Your task to perform on an android device: delete browsing data in the chrome app Image 0: 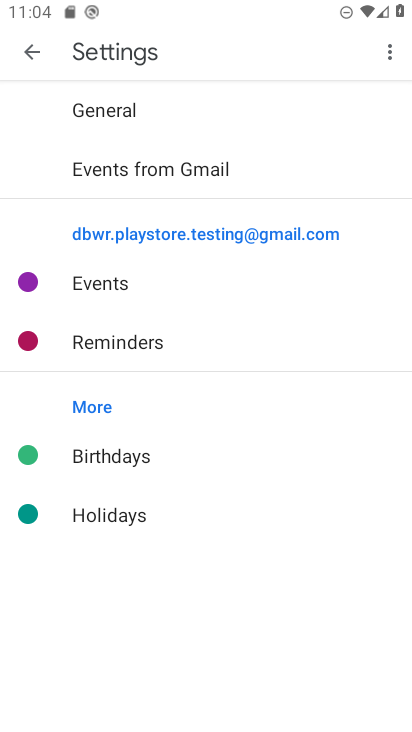
Step 0: press home button
Your task to perform on an android device: delete browsing data in the chrome app Image 1: 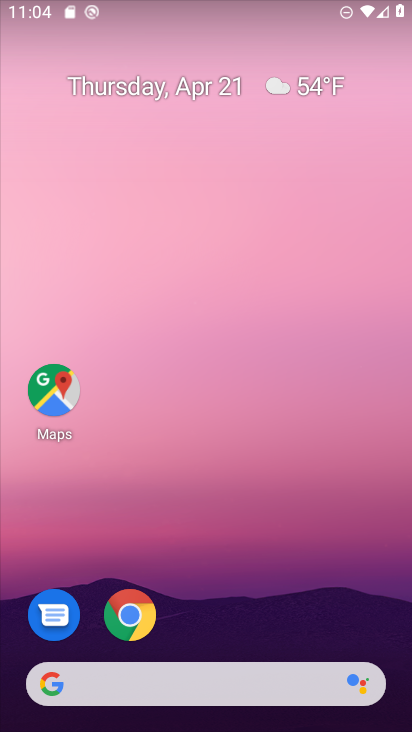
Step 1: click (124, 625)
Your task to perform on an android device: delete browsing data in the chrome app Image 2: 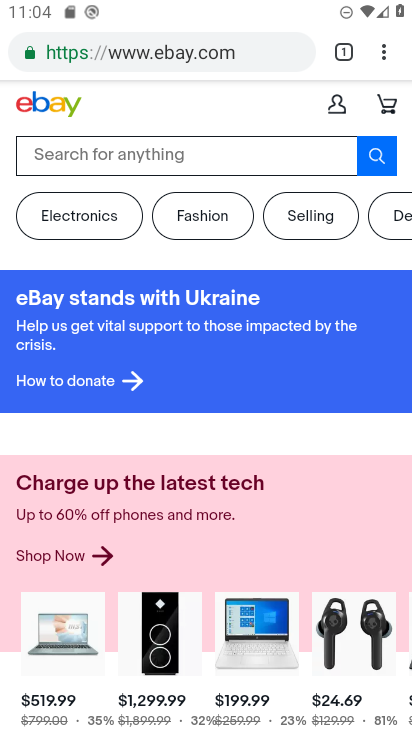
Step 2: click (382, 49)
Your task to perform on an android device: delete browsing data in the chrome app Image 3: 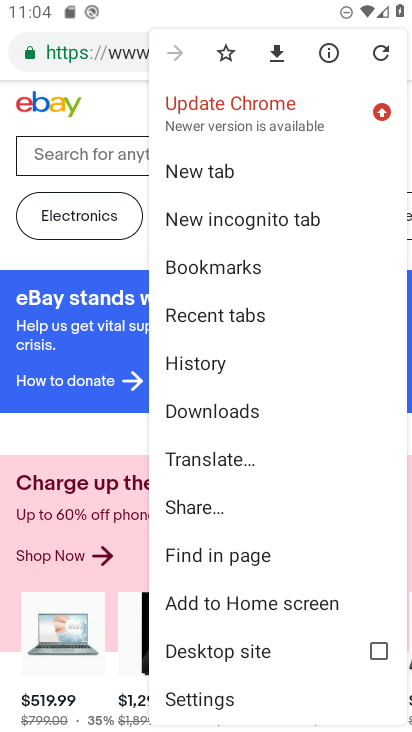
Step 3: click (245, 365)
Your task to perform on an android device: delete browsing data in the chrome app Image 4: 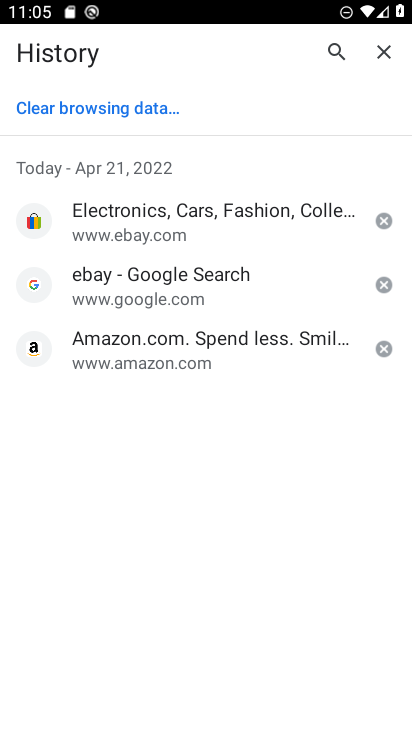
Step 4: click (79, 115)
Your task to perform on an android device: delete browsing data in the chrome app Image 5: 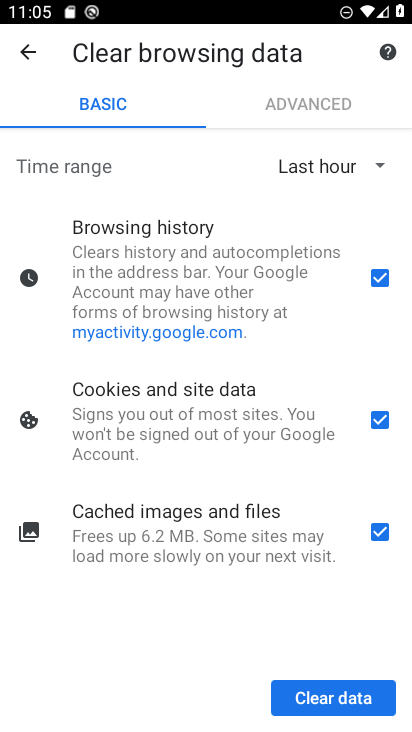
Step 5: click (332, 695)
Your task to perform on an android device: delete browsing data in the chrome app Image 6: 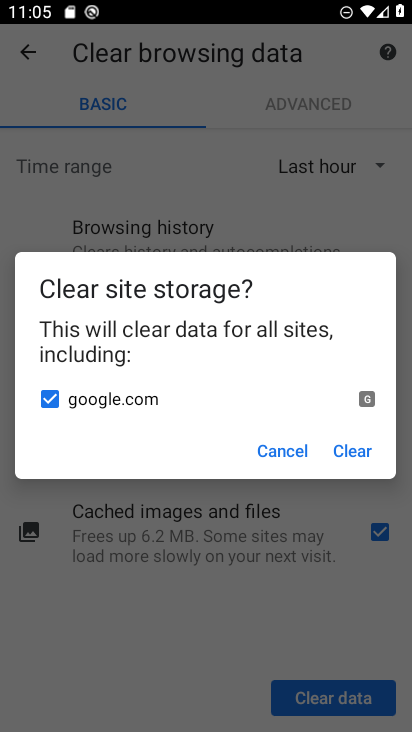
Step 6: click (339, 456)
Your task to perform on an android device: delete browsing data in the chrome app Image 7: 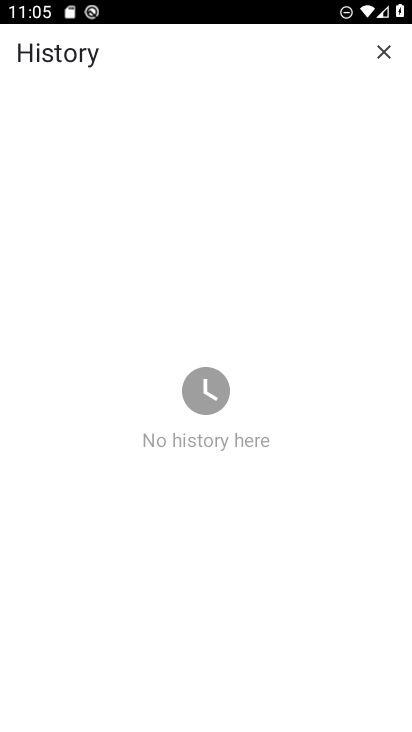
Step 7: task complete